Your task to perform on an android device: open chrome privacy settings Image 0: 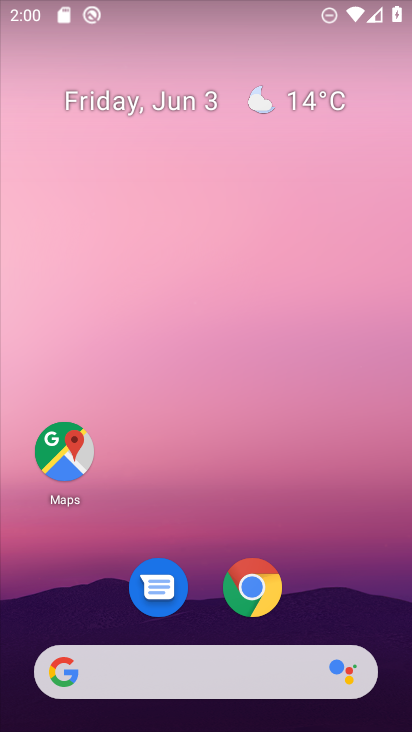
Step 0: click (250, 587)
Your task to perform on an android device: open chrome privacy settings Image 1: 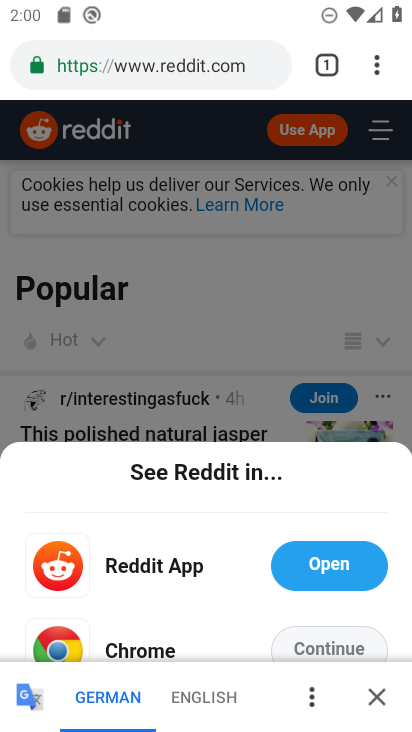
Step 1: click (379, 67)
Your task to perform on an android device: open chrome privacy settings Image 2: 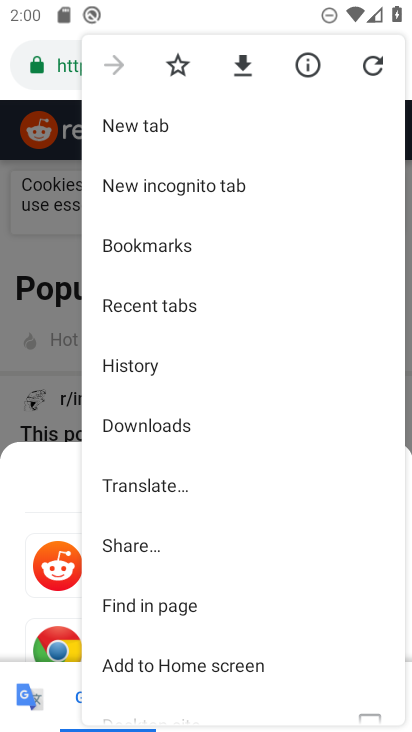
Step 2: drag from (192, 641) to (199, 134)
Your task to perform on an android device: open chrome privacy settings Image 3: 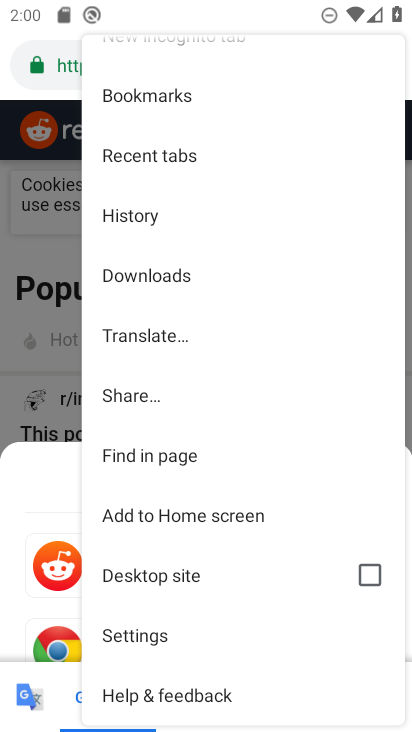
Step 3: click (147, 635)
Your task to perform on an android device: open chrome privacy settings Image 4: 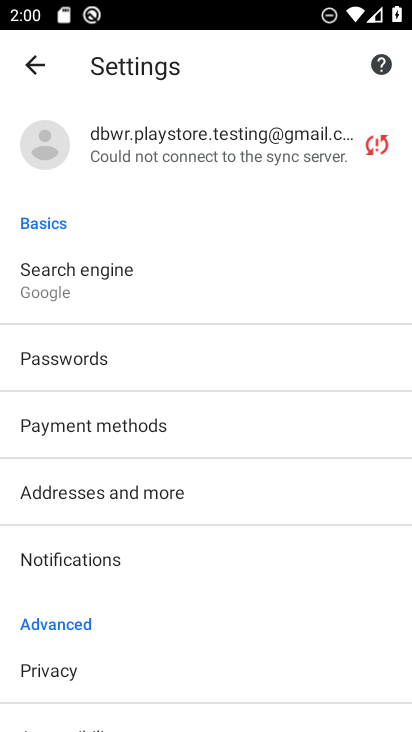
Step 4: drag from (188, 648) to (195, 192)
Your task to perform on an android device: open chrome privacy settings Image 5: 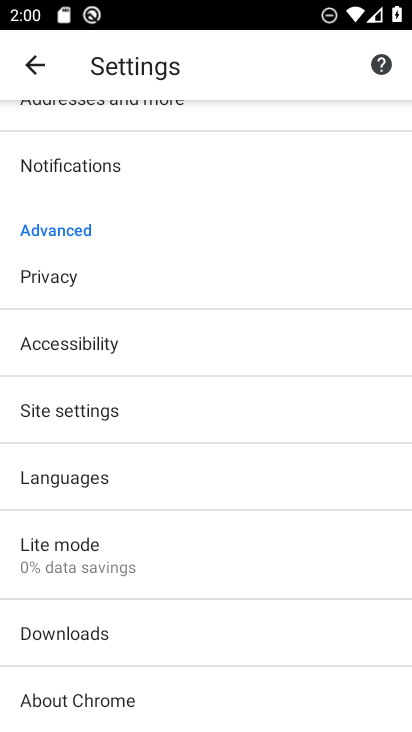
Step 5: click (121, 267)
Your task to perform on an android device: open chrome privacy settings Image 6: 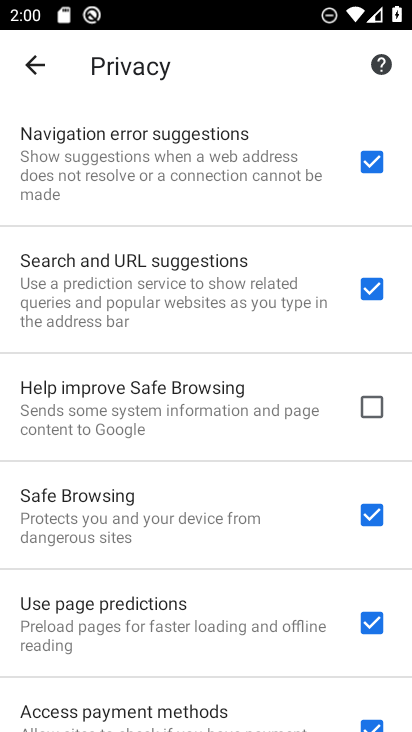
Step 6: task complete